Your task to perform on an android device: set an alarm Image 0: 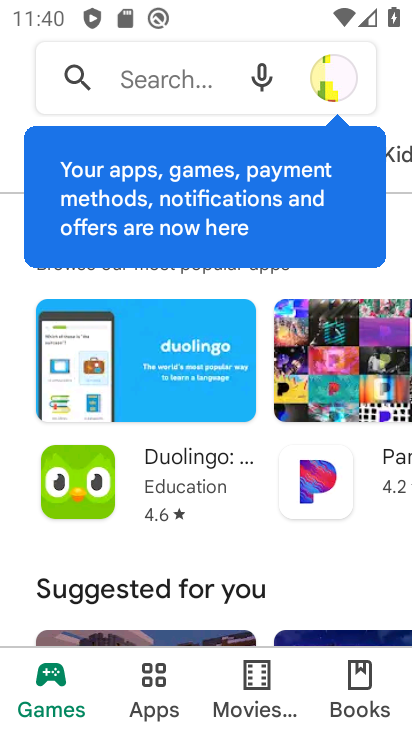
Step 0: press home button
Your task to perform on an android device: set an alarm Image 1: 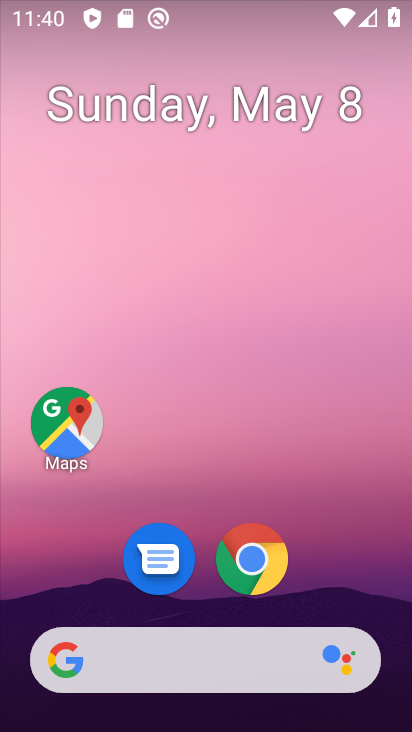
Step 1: drag from (189, 576) to (235, 368)
Your task to perform on an android device: set an alarm Image 2: 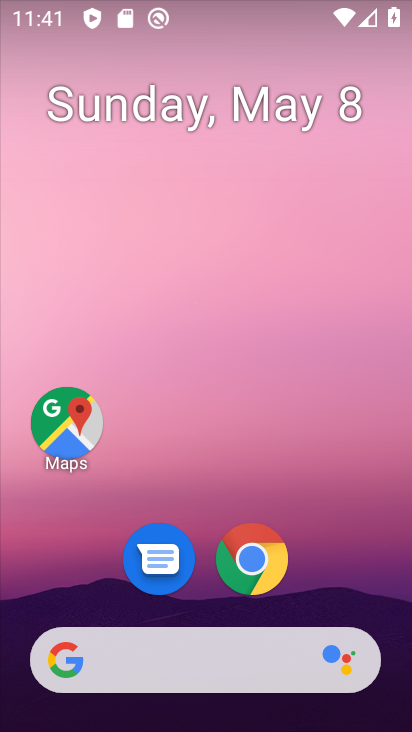
Step 2: drag from (235, 501) to (325, 112)
Your task to perform on an android device: set an alarm Image 3: 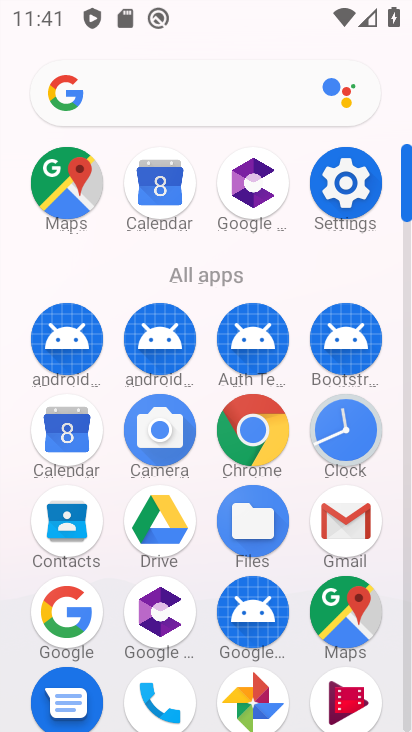
Step 3: click (320, 439)
Your task to perform on an android device: set an alarm Image 4: 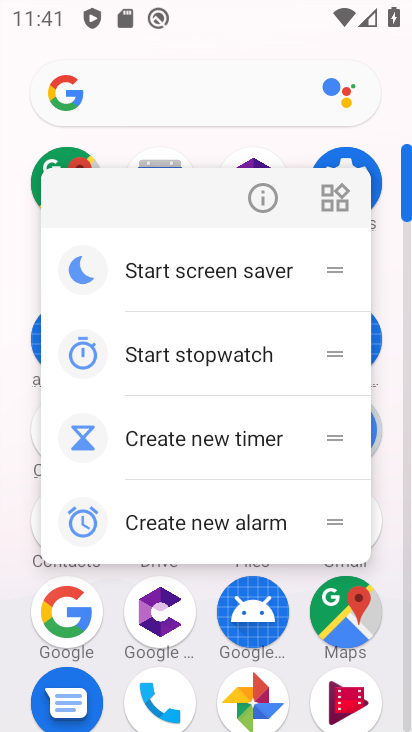
Step 4: click (386, 427)
Your task to perform on an android device: set an alarm Image 5: 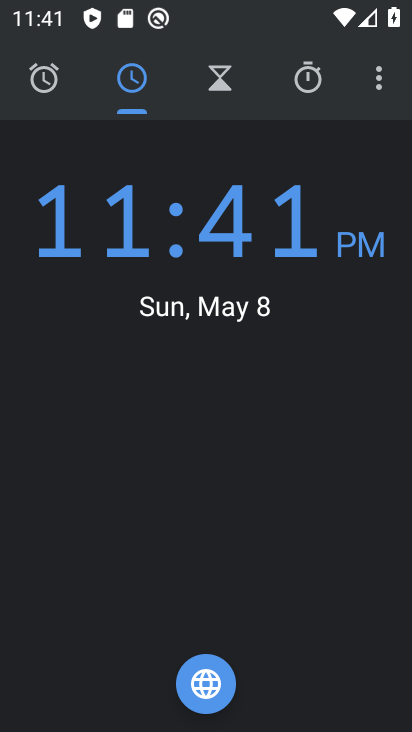
Step 5: drag from (218, 437) to (235, 343)
Your task to perform on an android device: set an alarm Image 6: 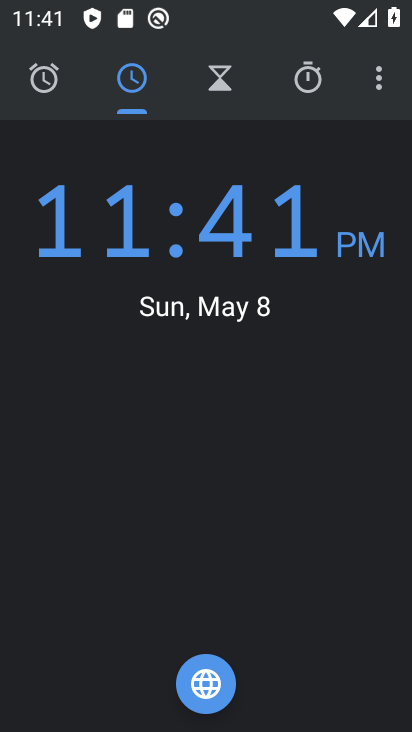
Step 6: click (60, 85)
Your task to perform on an android device: set an alarm Image 7: 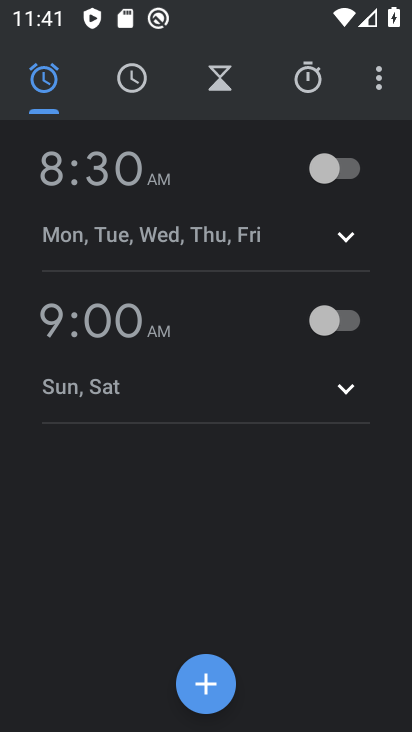
Step 7: click (340, 186)
Your task to perform on an android device: set an alarm Image 8: 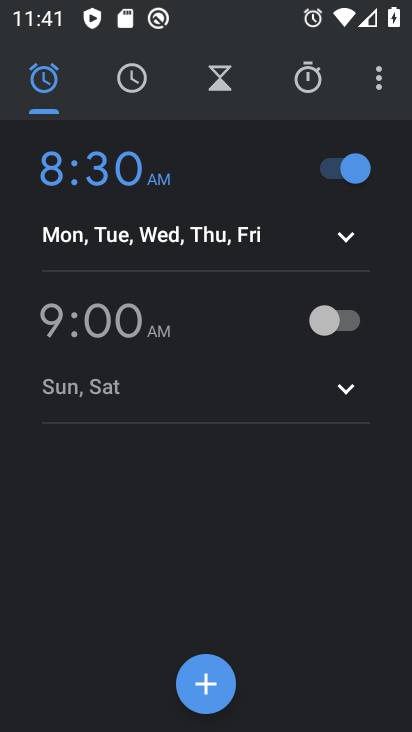
Step 8: task complete